Your task to perform on an android device: What's the weather going to be this weekend? Image 0: 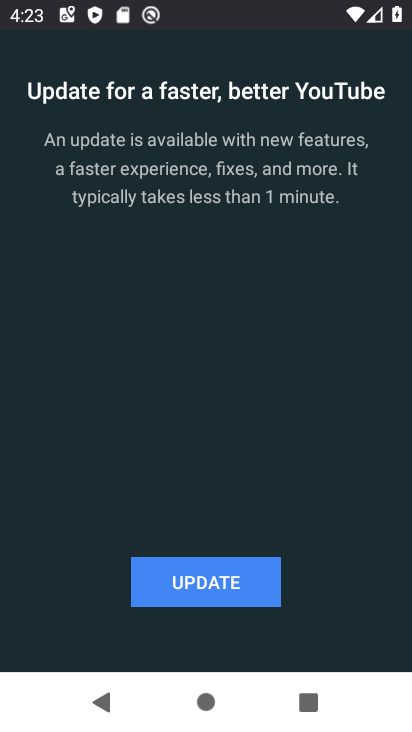
Step 0: press back button
Your task to perform on an android device: What's the weather going to be this weekend? Image 1: 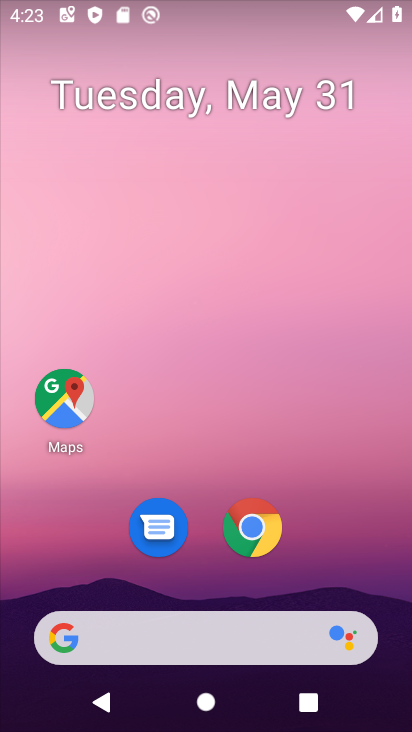
Step 1: drag from (348, 552) to (224, 16)
Your task to perform on an android device: What's the weather going to be this weekend? Image 2: 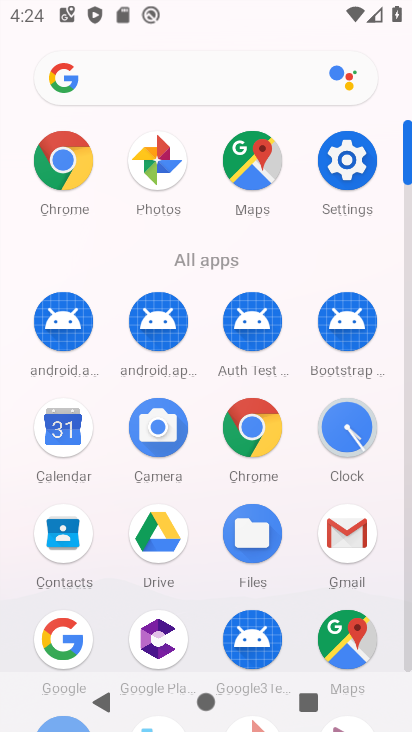
Step 2: drag from (20, 580) to (32, 255)
Your task to perform on an android device: What's the weather going to be this weekend? Image 3: 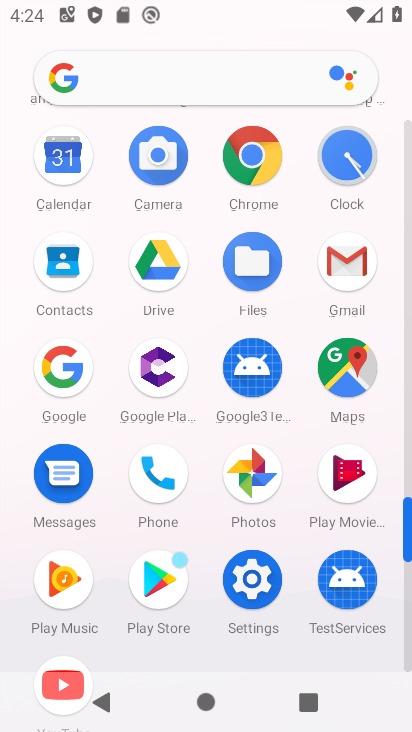
Step 3: drag from (15, 528) to (19, 255)
Your task to perform on an android device: What's the weather going to be this weekend? Image 4: 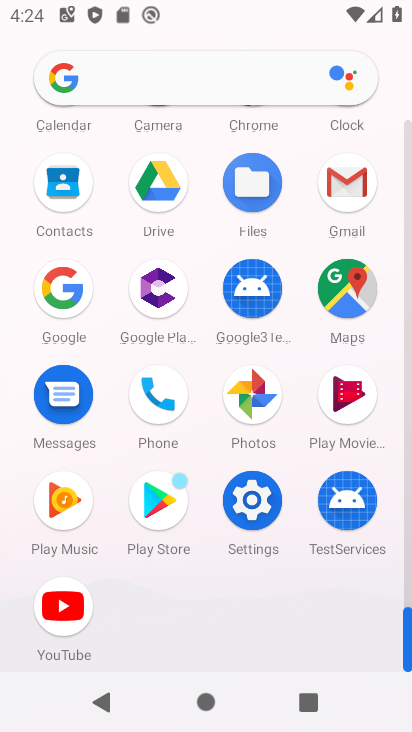
Step 4: drag from (111, 196) to (95, 570)
Your task to perform on an android device: What's the weather going to be this weekend? Image 5: 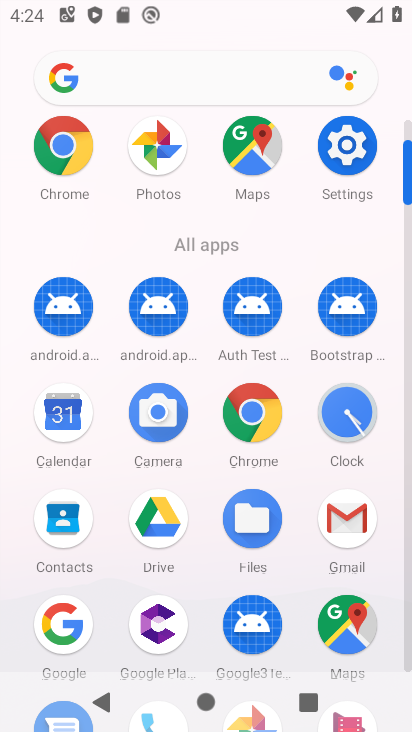
Step 5: click (251, 410)
Your task to perform on an android device: What's the weather going to be this weekend? Image 6: 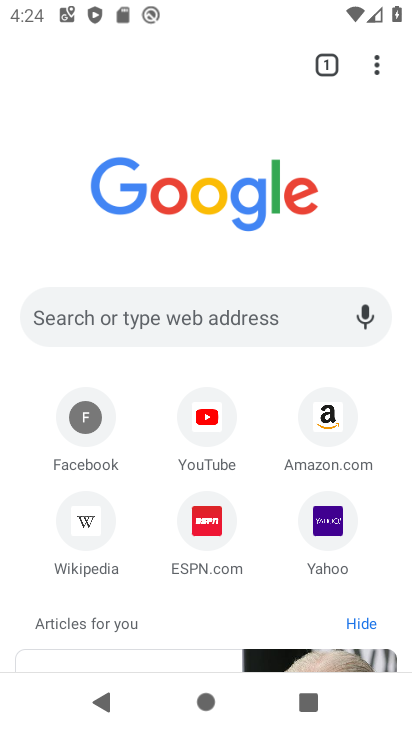
Step 6: click (181, 311)
Your task to perform on an android device: What's the weather going to be this weekend? Image 7: 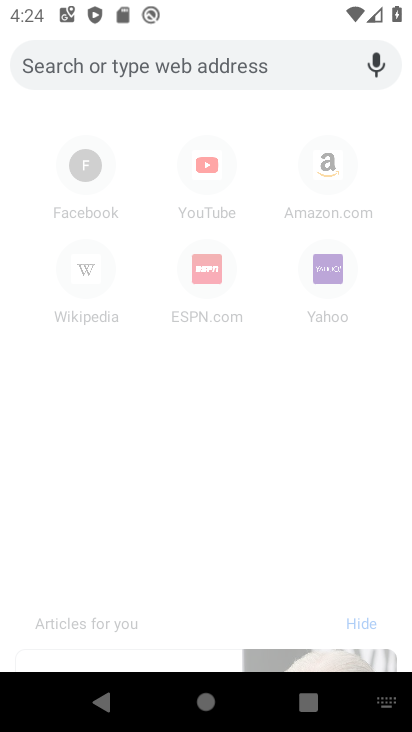
Step 7: type "What's the weather going to be this weekend?"
Your task to perform on an android device: What's the weather going to be this weekend? Image 8: 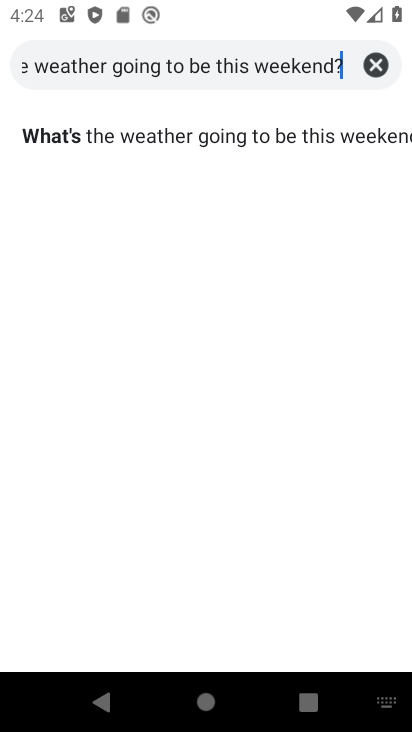
Step 8: type ""
Your task to perform on an android device: What's the weather going to be this weekend? Image 9: 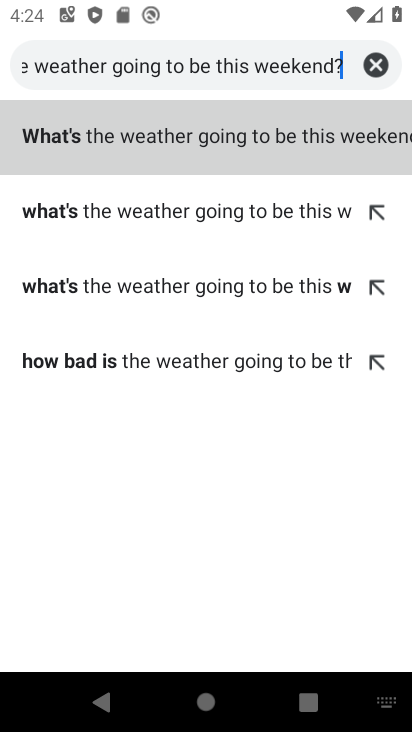
Step 9: click (210, 137)
Your task to perform on an android device: What's the weather going to be this weekend? Image 10: 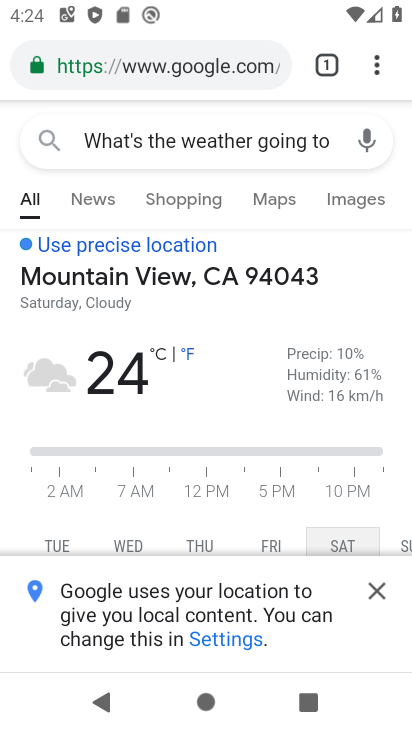
Step 10: click (371, 588)
Your task to perform on an android device: What's the weather going to be this weekend? Image 11: 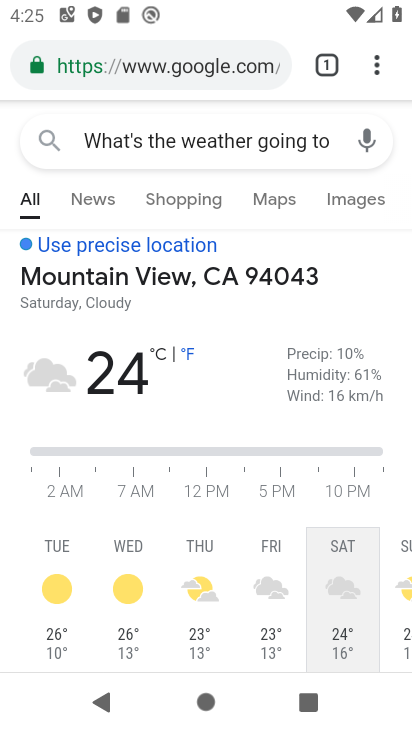
Step 11: task complete